Your task to perform on an android device: open chrome and create a bookmark for the current page Image 0: 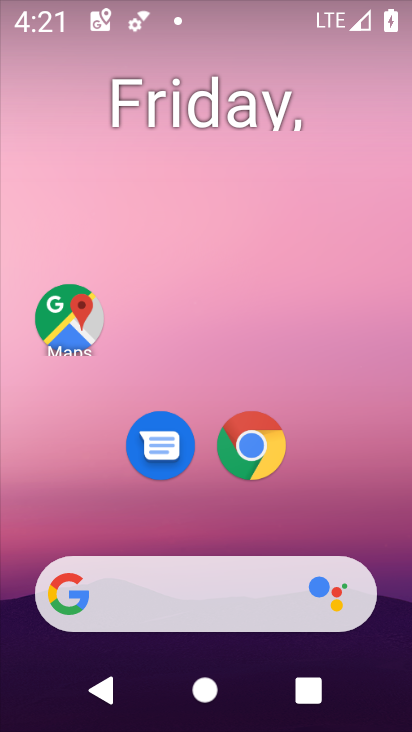
Step 0: drag from (380, 558) to (338, 82)
Your task to perform on an android device: open chrome and create a bookmark for the current page Image 1: 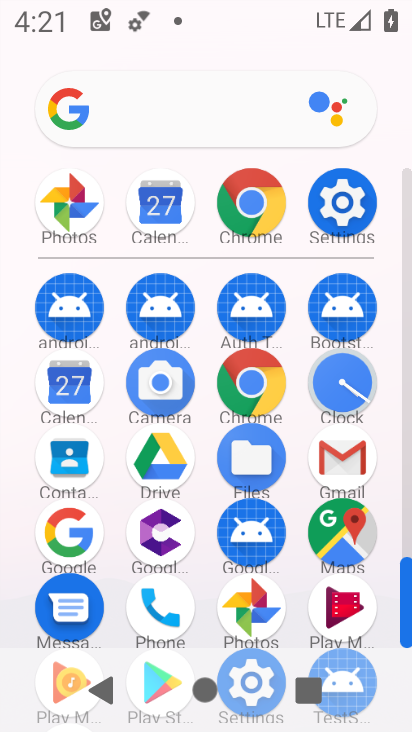
Step 1: click (261, 184)
Your task to perform on an android device: open chrome and create a bookmark for the current page Image 2: 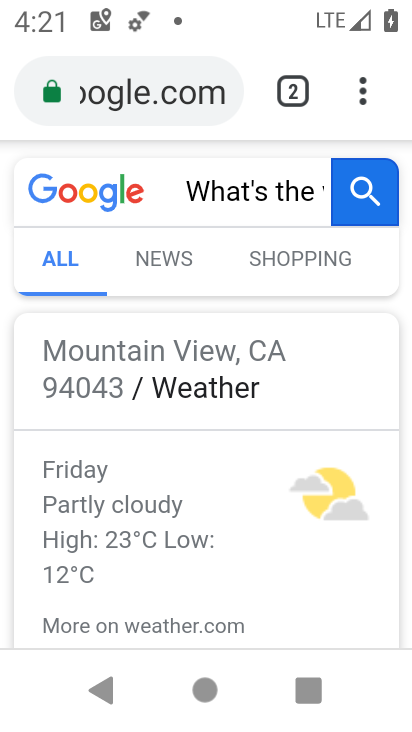
Step 2: click (351, 109)
Your task to perform on an android device: open chrome and create a bookmark for the current page Image 3: 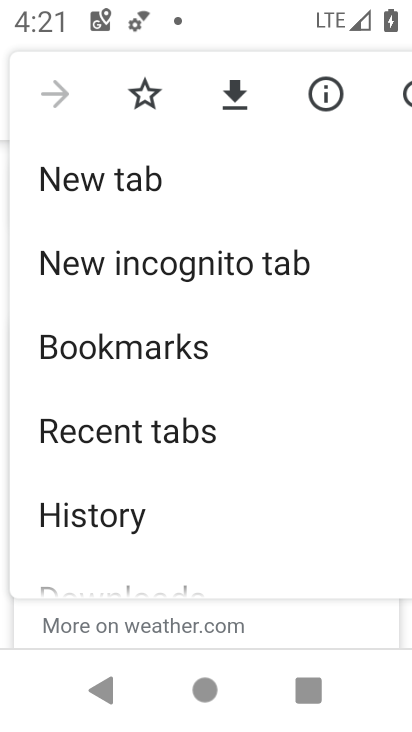
Step 3: click (161, 98)
Your task to perform on an android device: open chrome and create a bookmark for the current page Image 4: 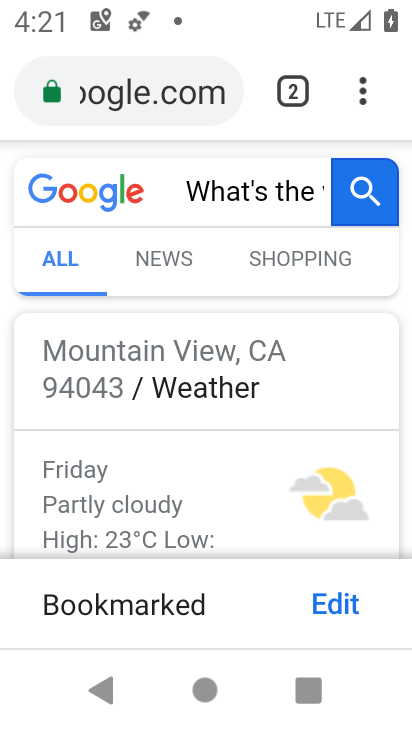
Step 4: task complete